Your task to perform on an android device: Search for seafood restaurants on Google Maps Image 0: 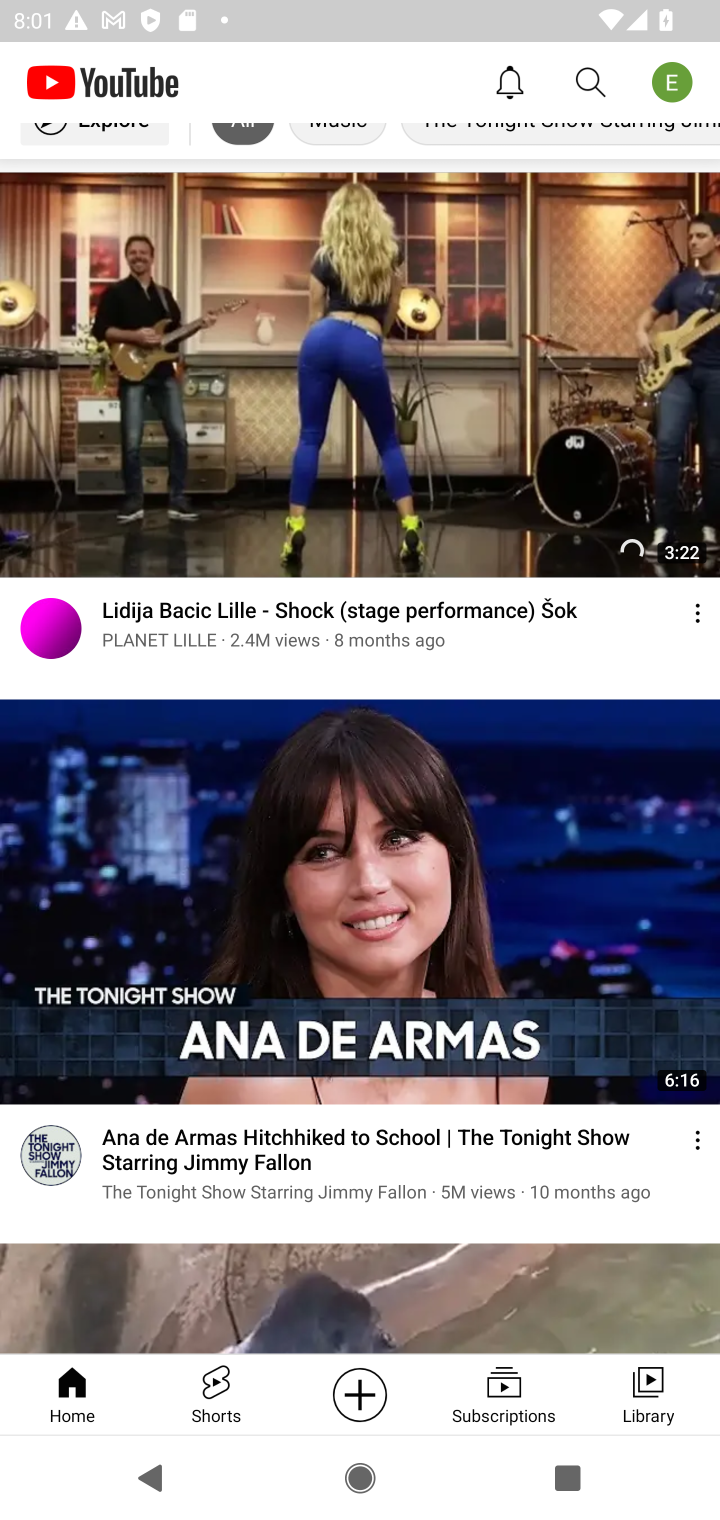
Step 0: press home button
Your task to perform on an android device: Search for seafood restaurants on Google Maps Image 1: 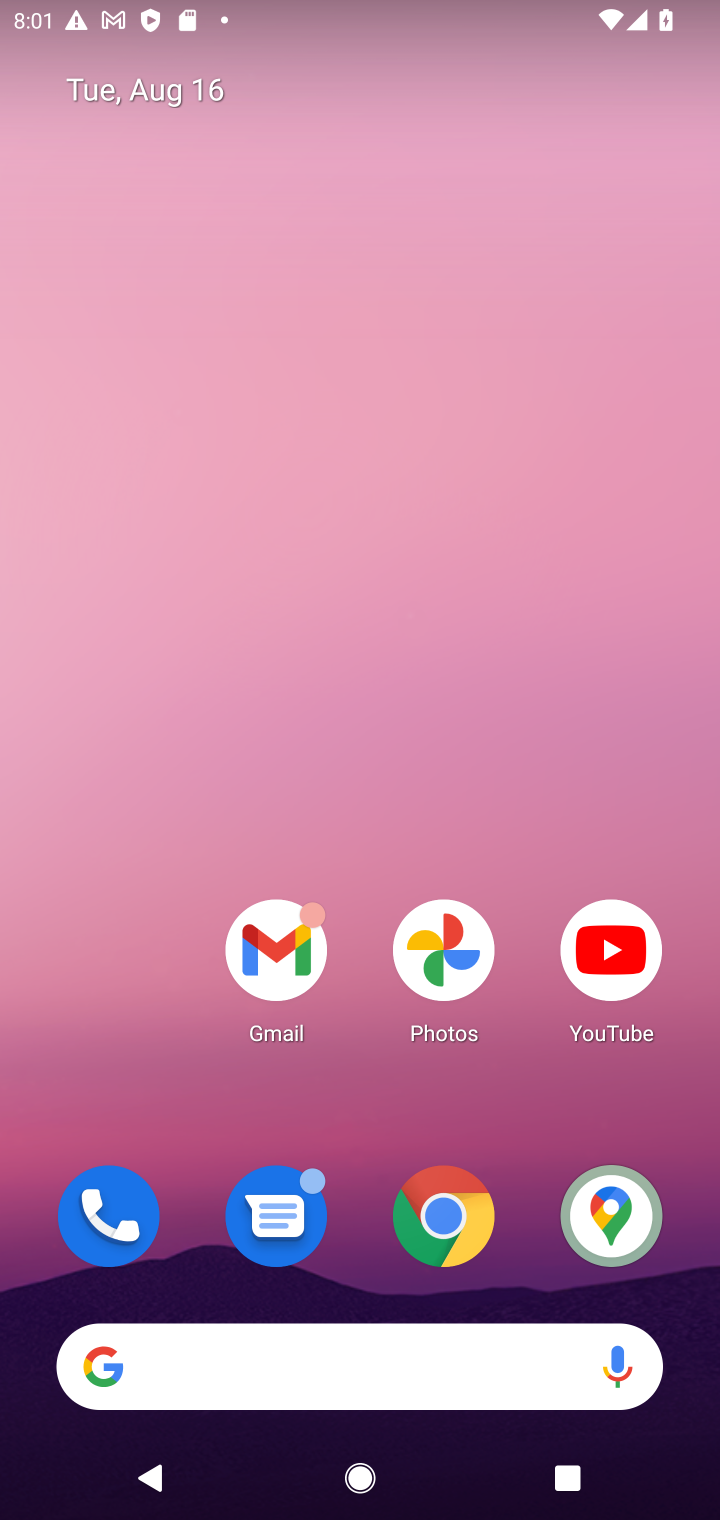
Step 1: drag from (393, 1304) to (249, 85)
Your task to perform on an android device: Search for seafood restaurants on Google Maps Image 2: 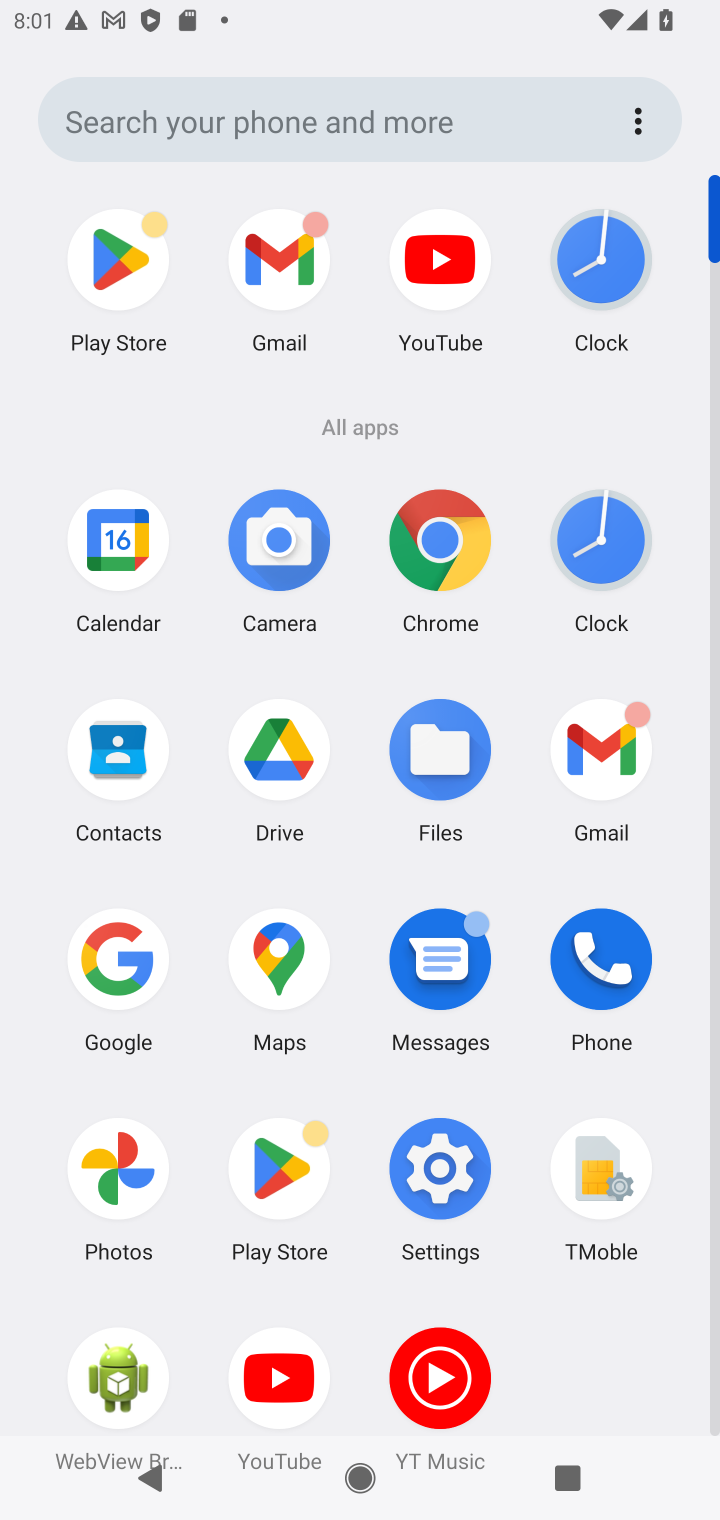
Step 2: click (254, 956)
Your task to perform on an android device: Search for seafood restaurants on Google Maps Image 3: 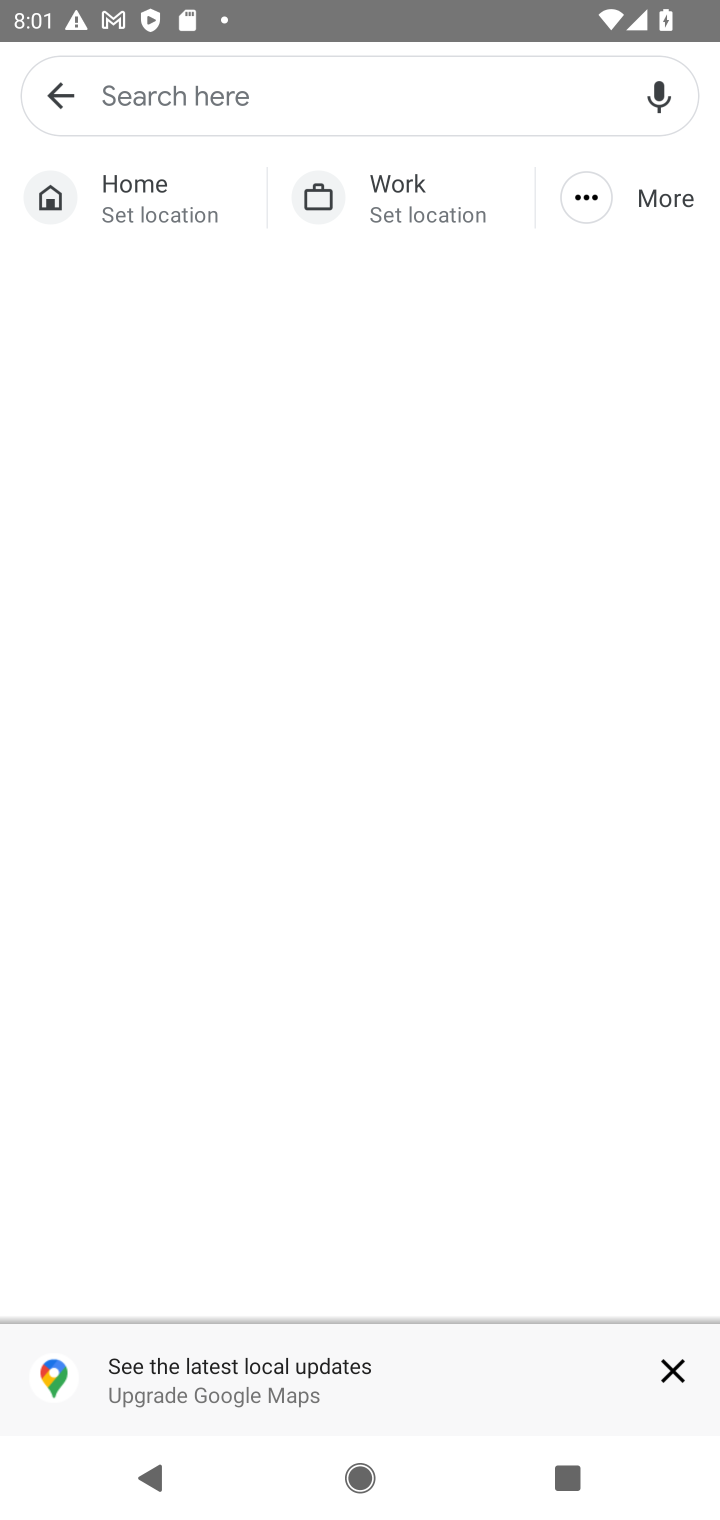
Step 3: click (224, 81)
Your task to perform on an android device: Search for seafood restaurants on Google Maps Image 4: 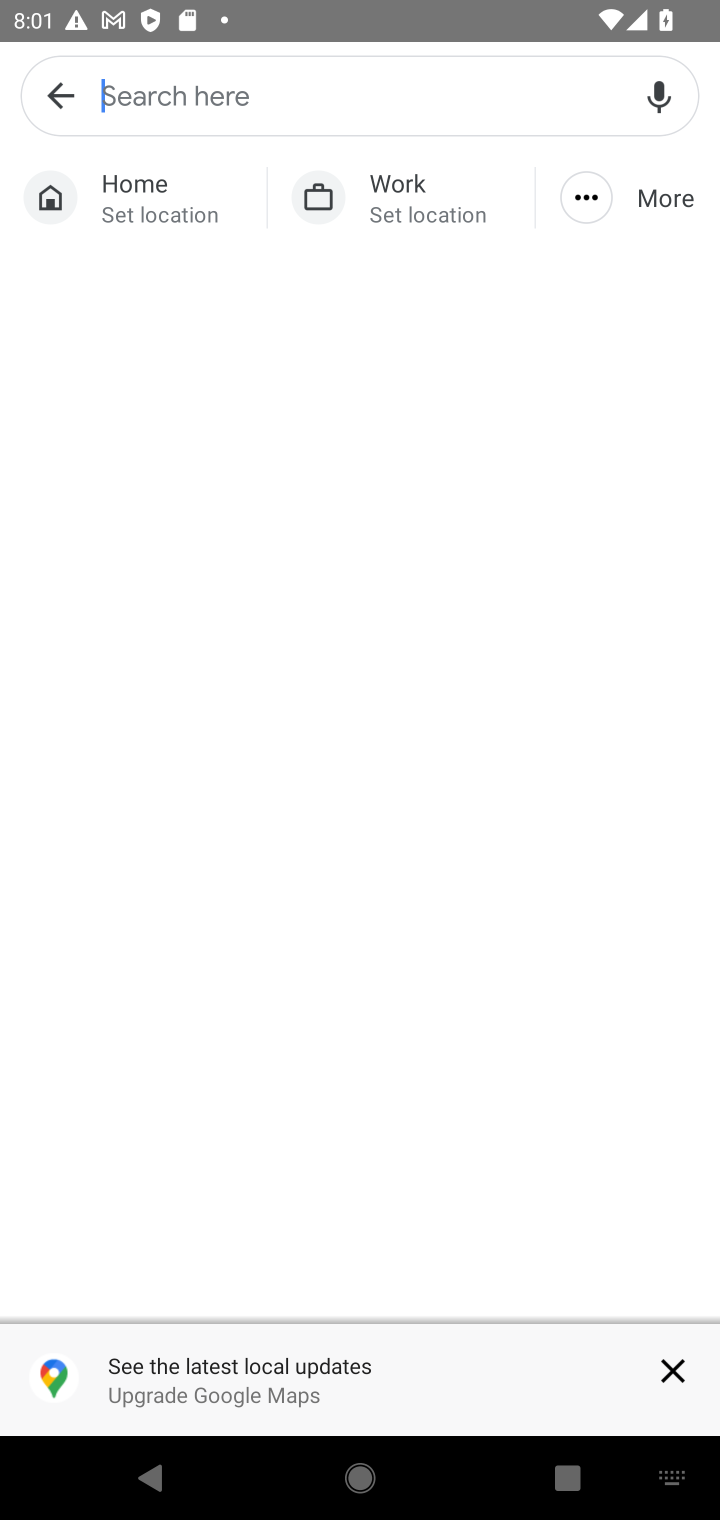
Step 4: type " seafood restaurants"
Your task to perform on an android device: Search for seafood restaurants on Google Maps Image 5: 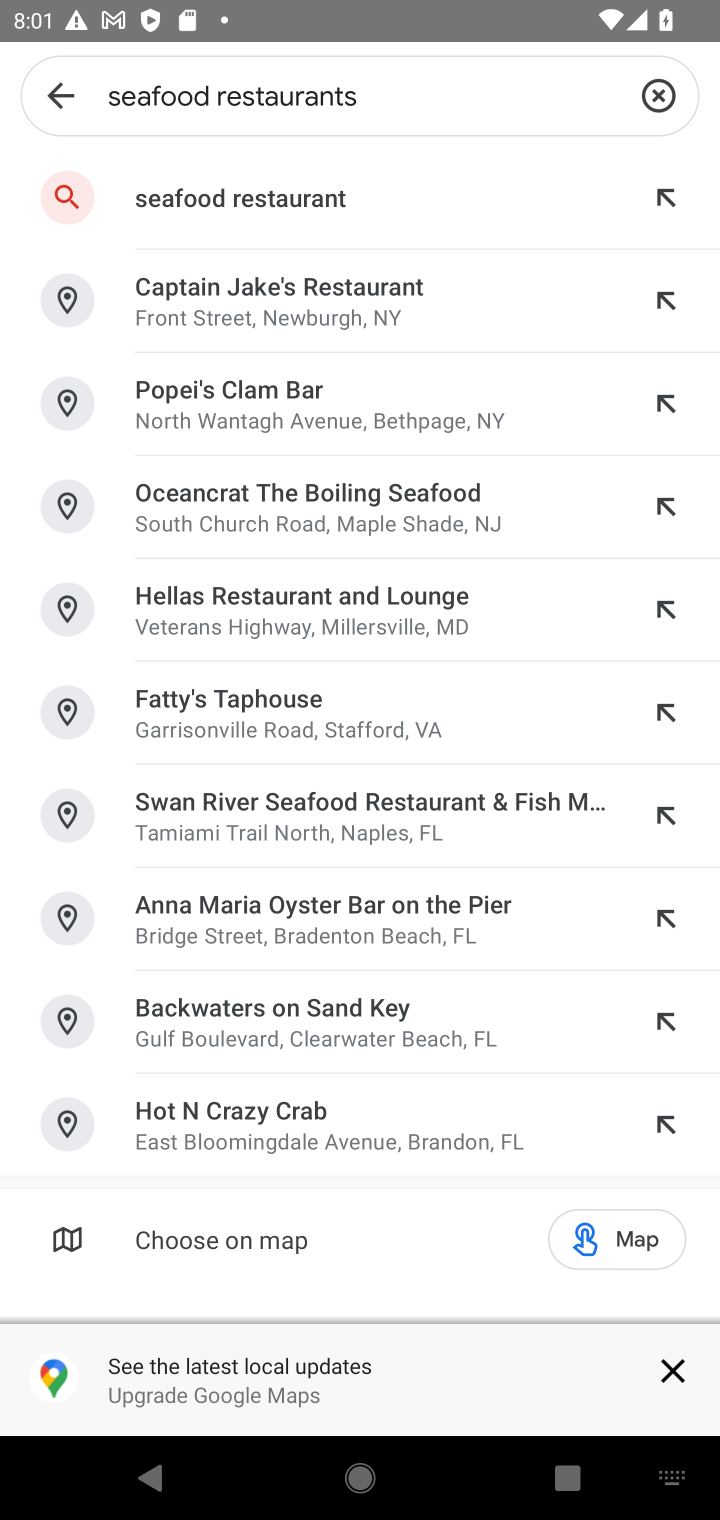
Step 5: click (219, 223)
Your task to perform on an android device: Search for seafood restaurants on Google Maps Image 6: 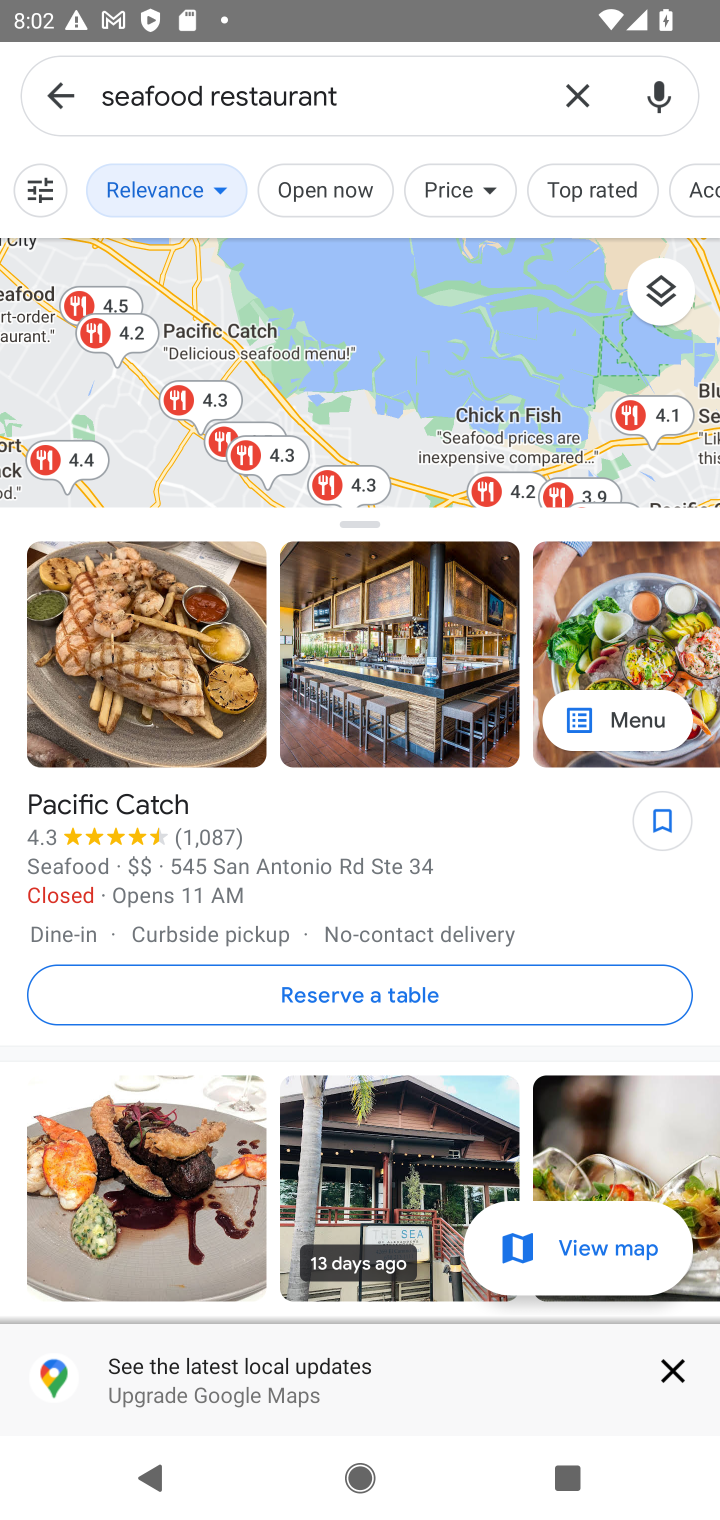
Step 6: task complete